Your task to perform on an android device: turn off picture-in-picture Image 0: 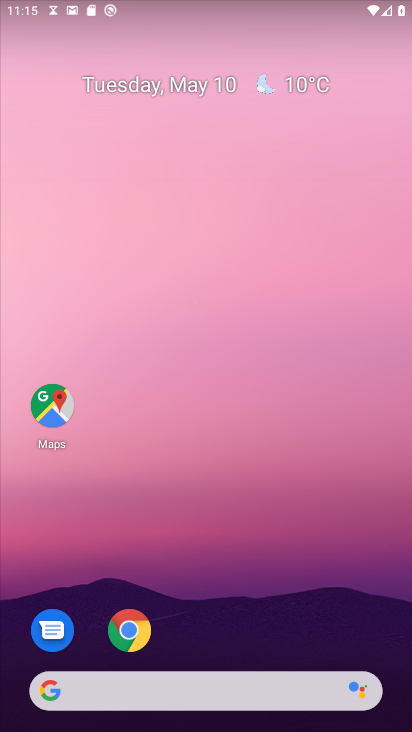
Step 0: drag from (232, 615) to (232, 21)
Your task to perform on an android device: turn off picture-in-picture Image 1: 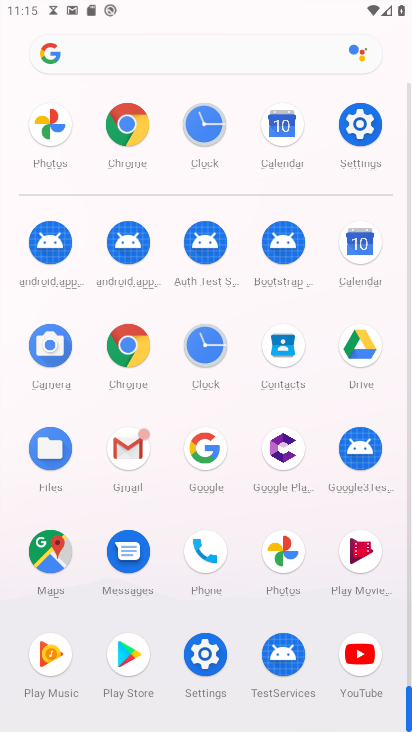
Step 1: click (362, 128)
Your task to perform on an android device: turn off picture-in-picture Image 2: 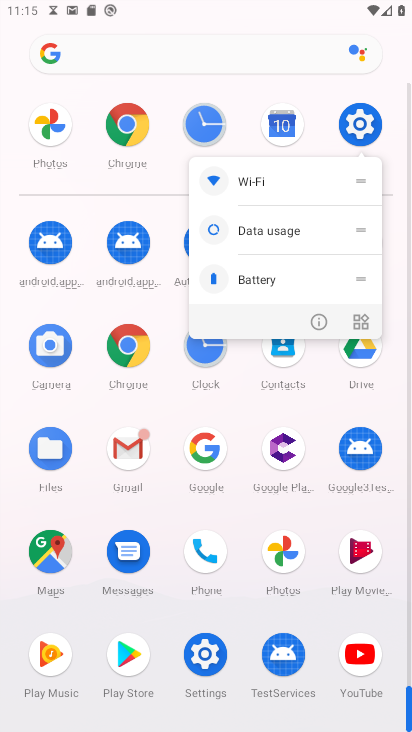
Step 2: click (354, 131)
Your task to perform on an android device: turn off picture-in-picture Image 3: 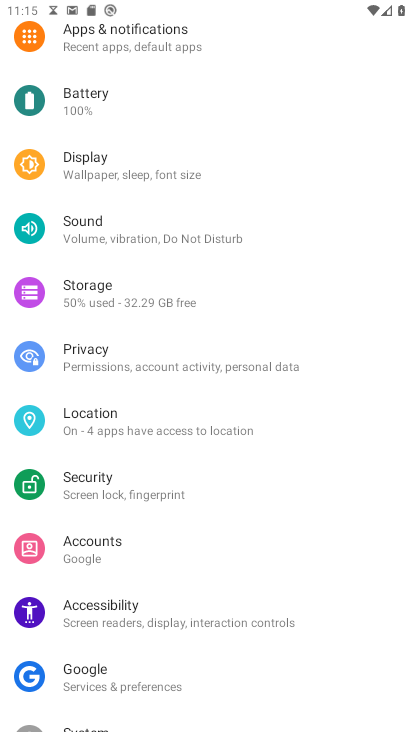
Step 3: click (183, 43)
Your task to perform on an android device: turn off picture-in-picture Image 4: 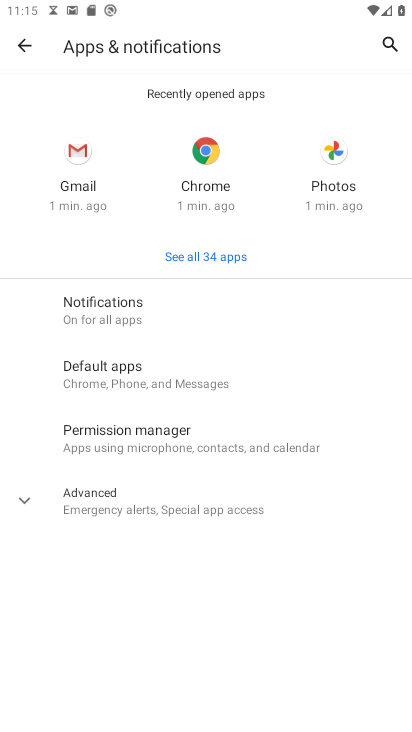
Step 4: click (247, 507)
Your task to perform on an android device: turn off picture-in-picture Image 5: 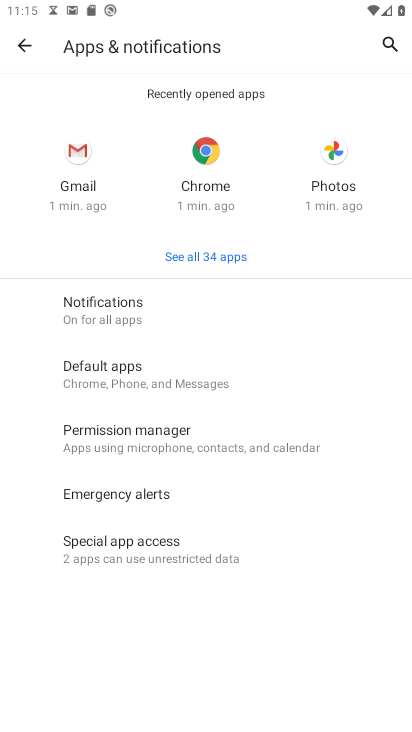
Step 5: click (225, 557)
Your task to perform on an android device: turn off picture-in-picture Image 6: 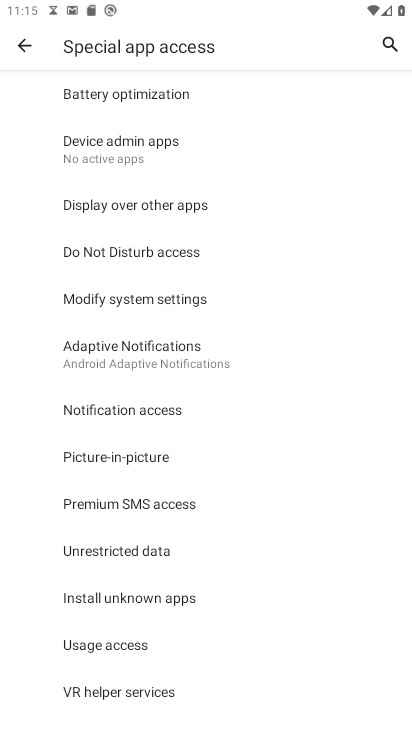
Step 6: click (147, 456)
Your task to perform on an android device: turn off picture-in-picture Image 7: 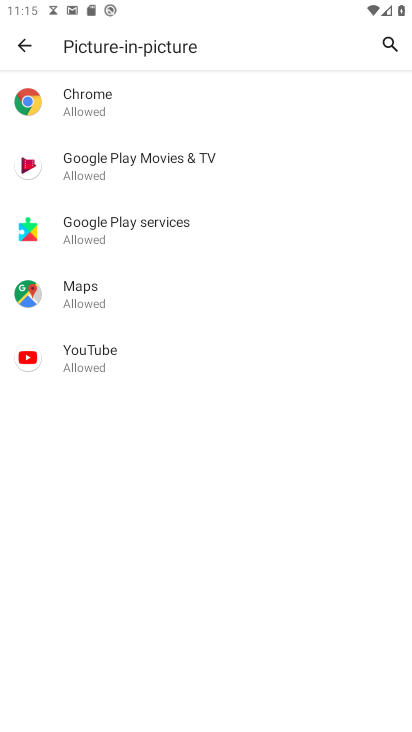
Step 7: click (112, 100)
Your task to perform on an android device: turn off picture-in-picture Image 8: 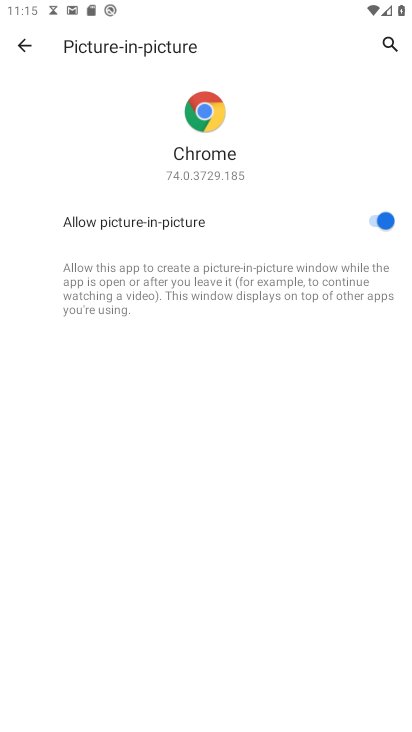
Step 8: click (375, 218)
Your task to perform on an android device: turn off picture-in-picture Image 9: 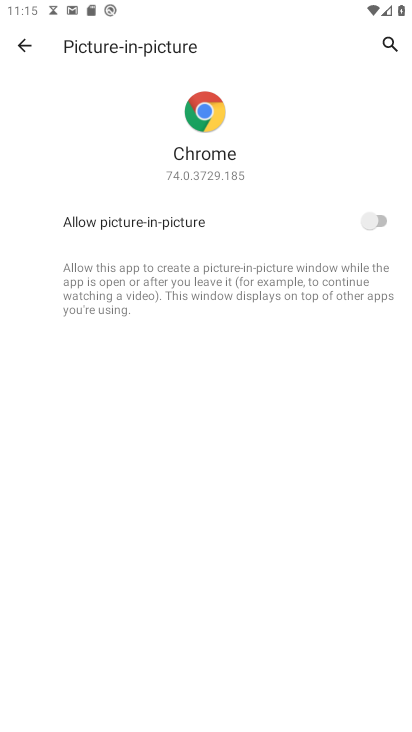
Step 9: click (22, 43)
Your task to perform on an android device: turn off picture-in-picture Image 10: 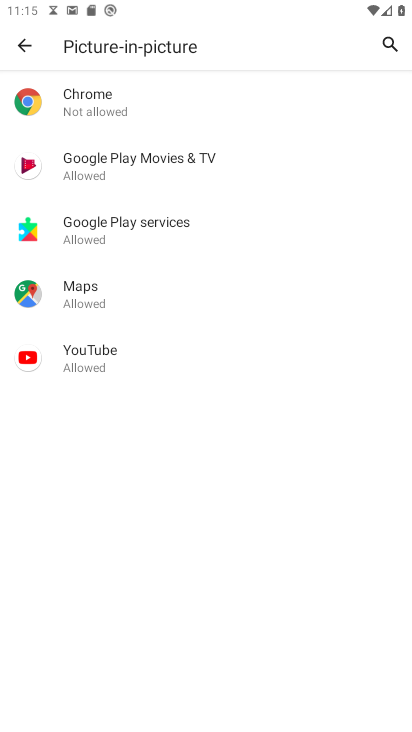
Step 10: click (185, 173)
Your task to perform on an android device: turn off picture-in-picture Image 11: 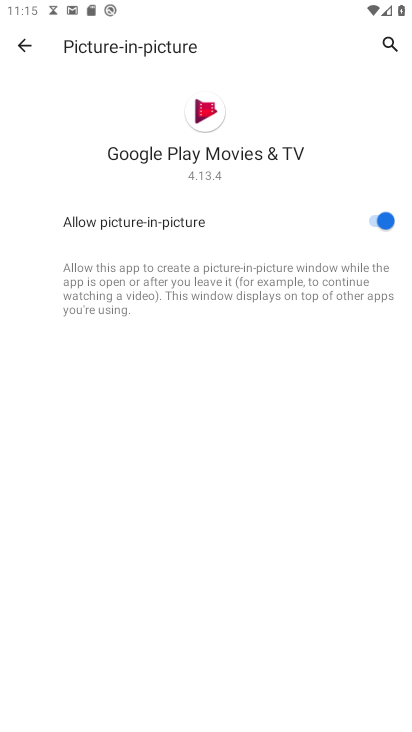
Step 11: click (374, 218)
Your task to perform on an android device: turn off picture-in-picture Image 12: 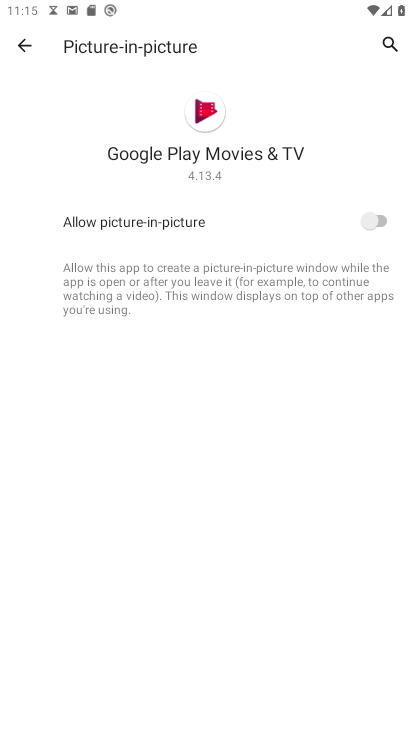
Step 12: click (26, 41)
Your task to perform on an android device: turn off picture-in-picture Image 13: 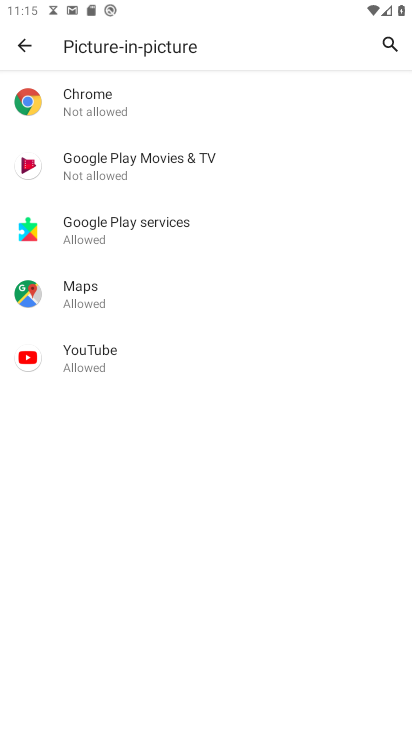
Step 13: click (126, 238)
Your task to perform on an android device: turn off picture-in-picture Image 14: 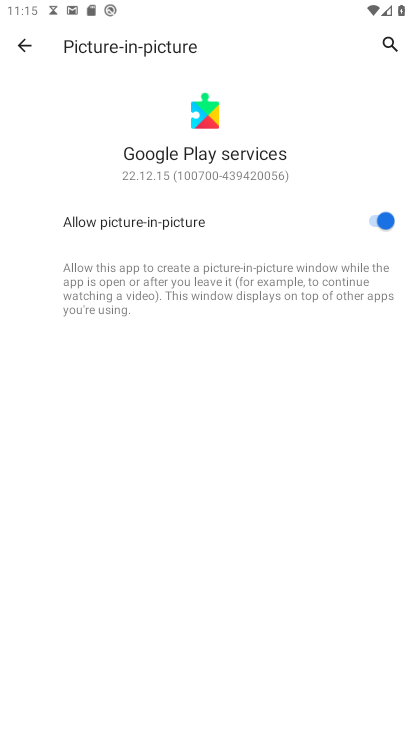
Step 14: click (374, 209)
Your task to perform on an android device: turn off picture-in-picture Image 15: 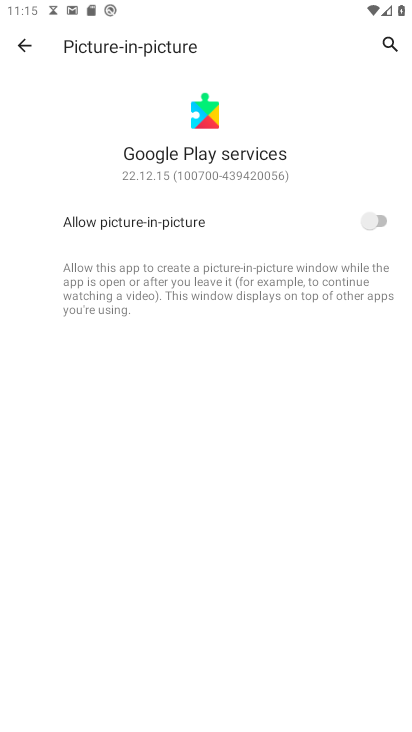
Step 15: click (22, 39)
Your task to perform on an android device: turn off picture-in-picture Image 16: 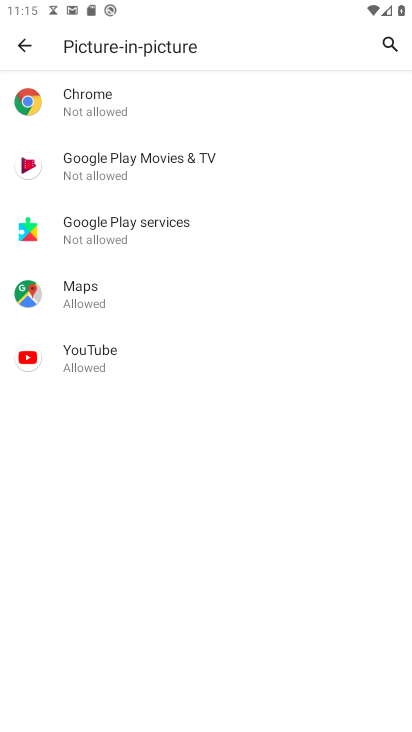
Step 16: click (105, 305)
Your task to perform on an android device: turn off picture-in-picture Image 17: 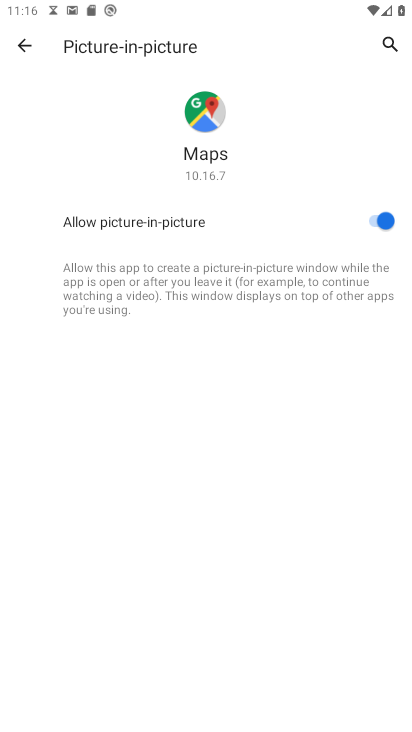
Step 17: click (369, 219)
Your task to perform on an android device: turn off picture-in-picture Image 18: 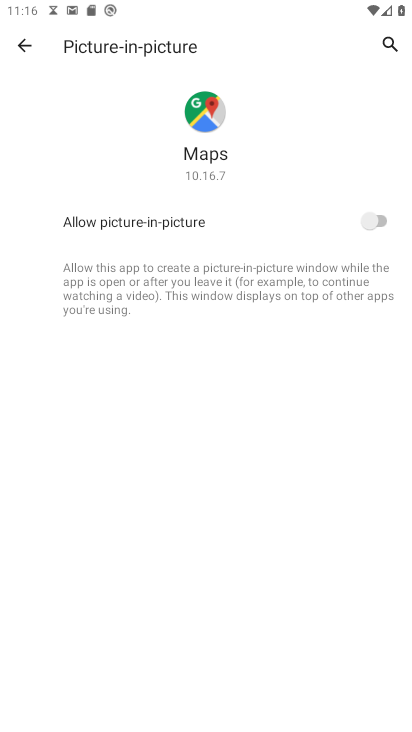
Step 18: click (23, 41)
Your task to perform on an android device: turn off picture-in-picture Image 19: 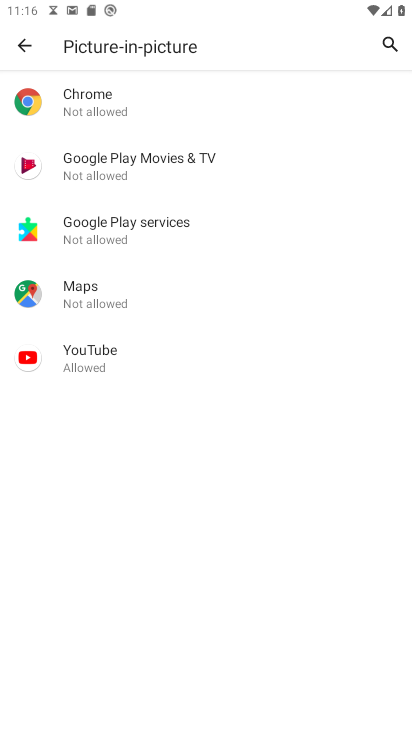
Step 19: click (90, 372)
Your task to perform on an android device: turn off picture-in-picture Image 20: 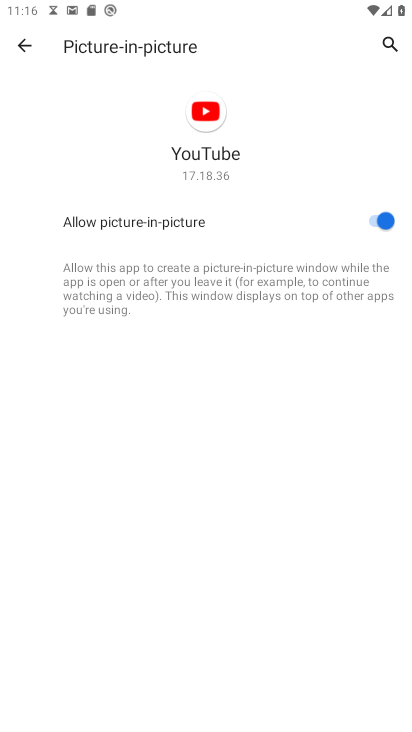
Step 20: click (377, 216)
Your task to perform on an android device: turn off picture-in-picture Image 21: 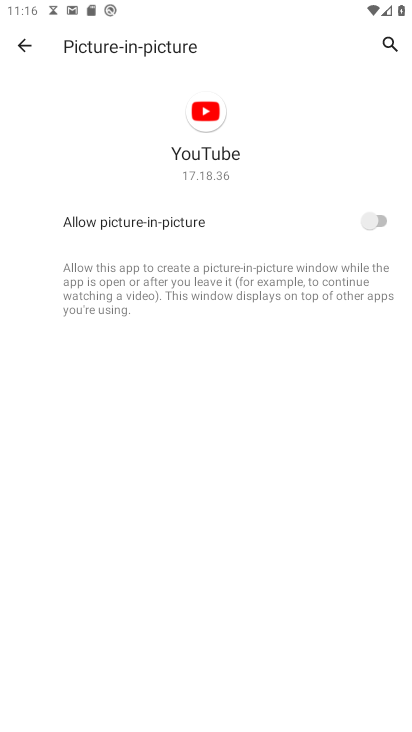
Step 21: task complete